Your task to perform on an android device: Open CNN.com Image 0: 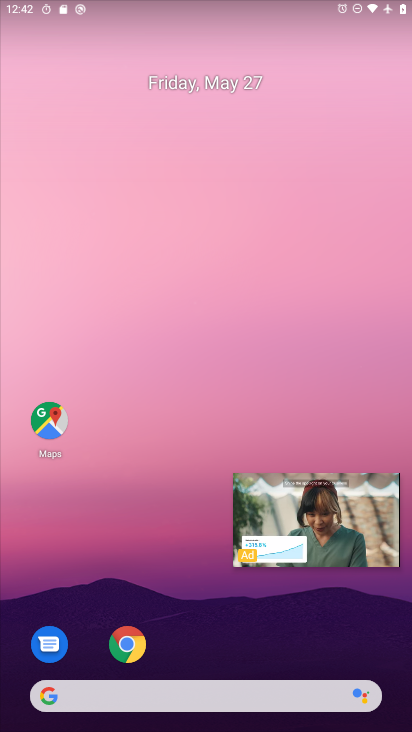
Step 0: click (392, 478)
Your task to perform on an android device: Open CNN.com Image 1: 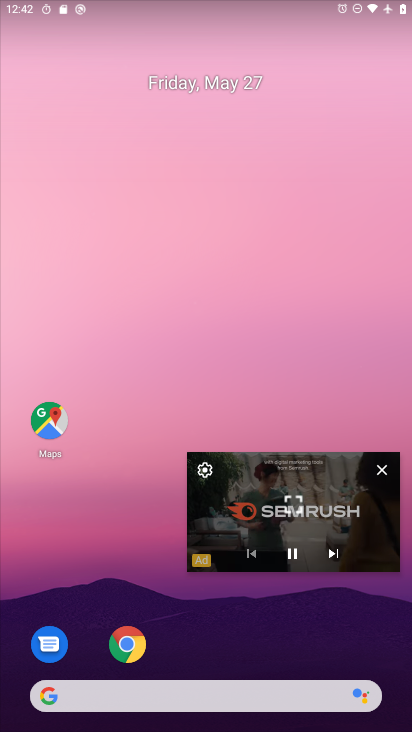
Step 1: click (380, 463)
Your task to perform on an android device: Open CNN.com Image 2: 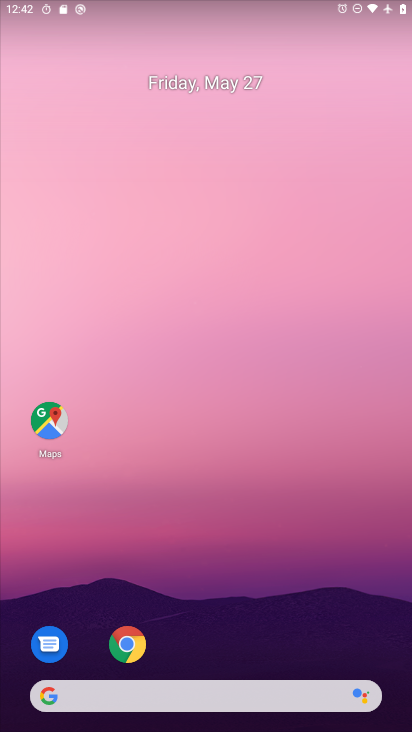
Step 2: click (132, 643)
Your task to perform on an android device: Open CNN.com Image 3: 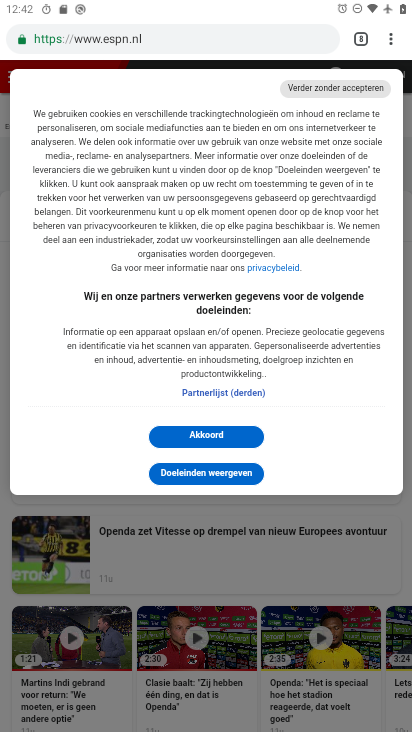
Step 3: click (356, 34)
Your task to perform on an android device: Open CNN.com Image 4: 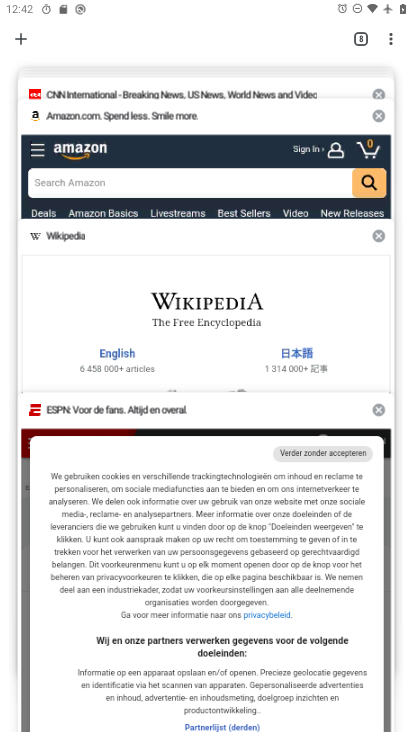
Step 4: click (29, 34)
Your task to perform on an android device: Open CNN.com Image 5: 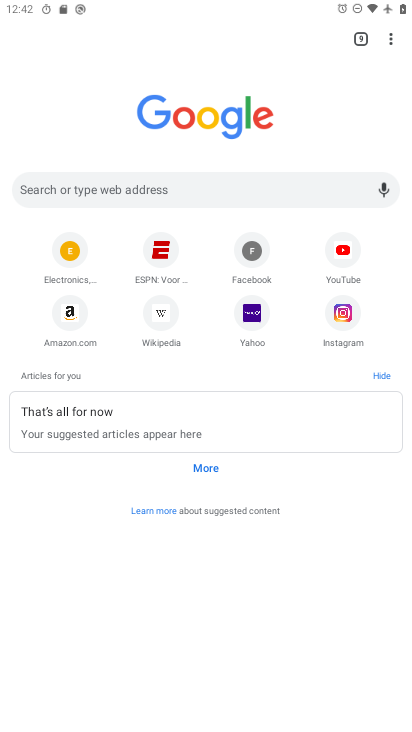
Step 5: click (166, 185)
Your task to perform on an android device: Open CNN.com Image 6: 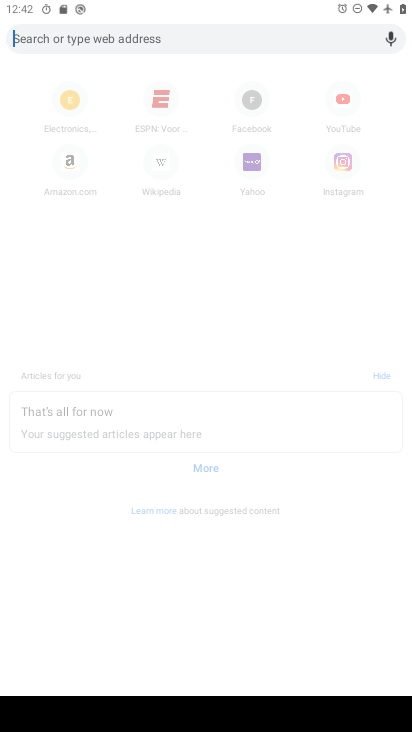
Step 6: type "CNN.com"
Your task to perform on an android device: Open CNN.com Image 7: 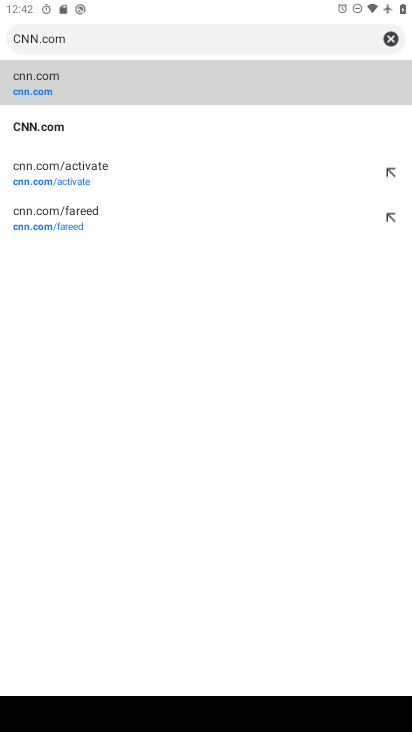
Step 7: click (58, 87)
Your task to perform on an android device: Open CNN.com Image 8: 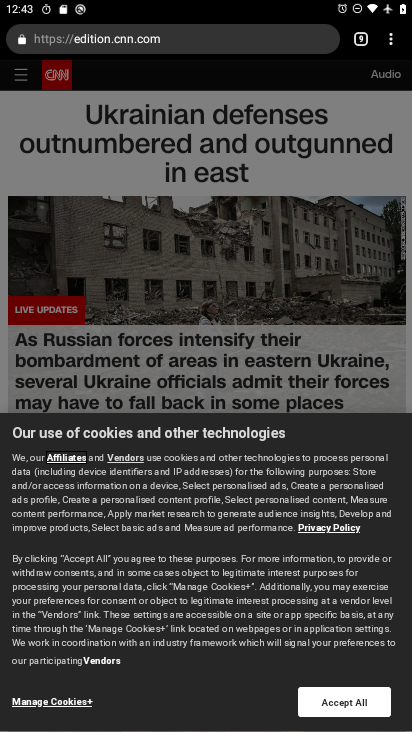
Step 8: task complete